Your task to perform on an android device: Is it going to rain tomorrow? Image 0: 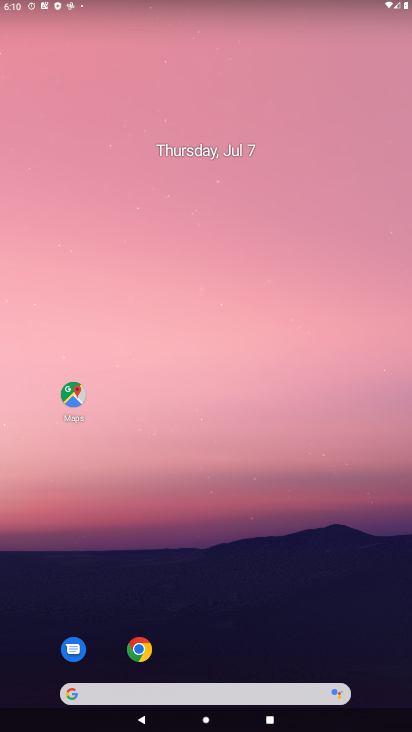
Step 0: drag from (378, 692) to (168, 0)
Your task to perform on an android device: Is it going to rain tomorrow? Image 1: 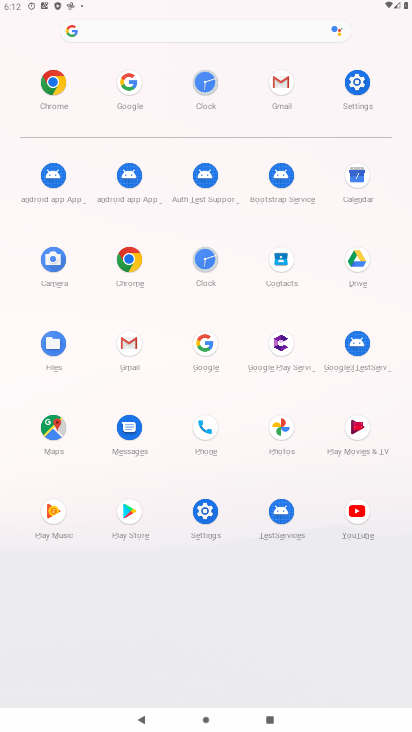
Step 1: click (215, 348)
Your task to perform on an android device: Is it going to rain tomorrow? Image 2: 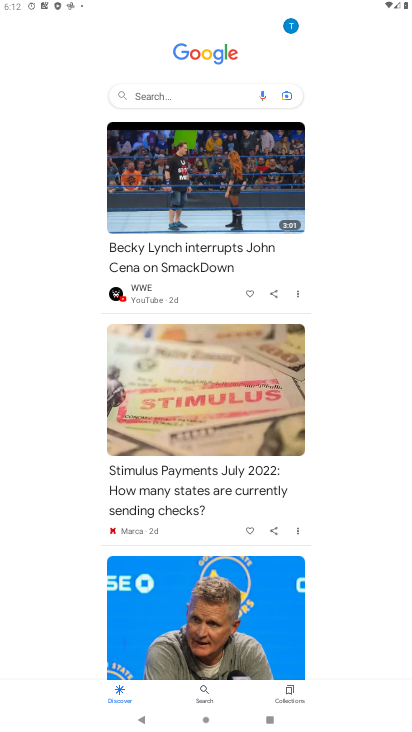
Step 2: click (151, 104)
Your task to perform on an android device: Is it going to rain tomorrow? Image 3: 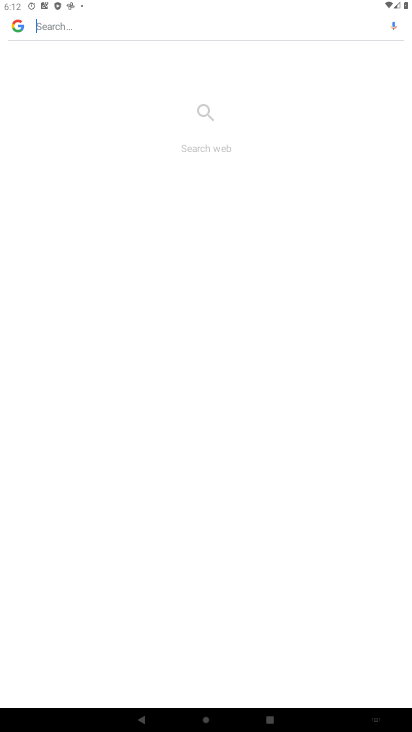
Step 3: type "Is it going to rain tomorrow?"
Your task to perform on an android device: Is it going to rain tomorrow? Image 4: 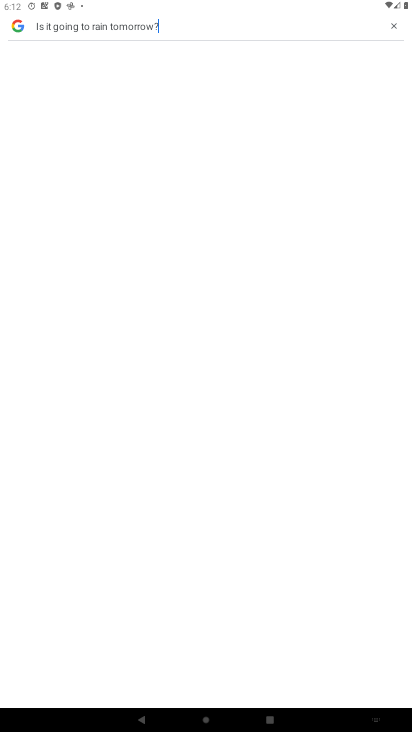
Step 4: task complete